Your task to perform on an android device: See recent photos Image 0: 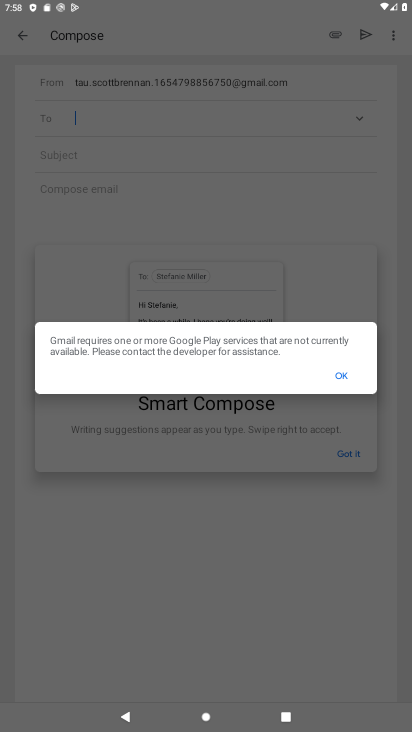
Step 0: press home button
Your task to perform on an android device: See recent photos Image 1: 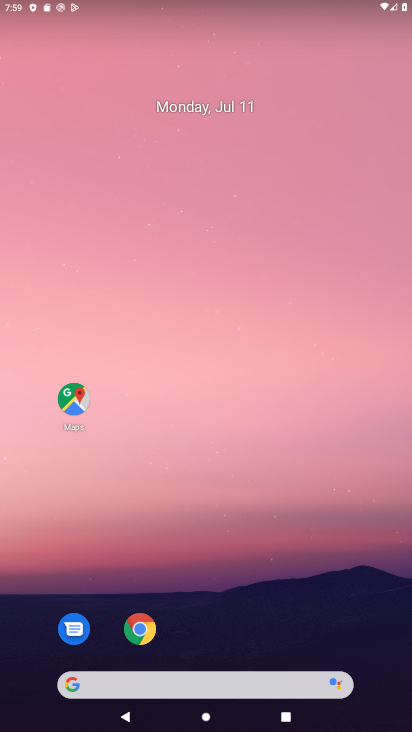
Step 1: drag from (196, 665) to (171, 215)
Your task to perform on an android device: See recent photos Image 2: 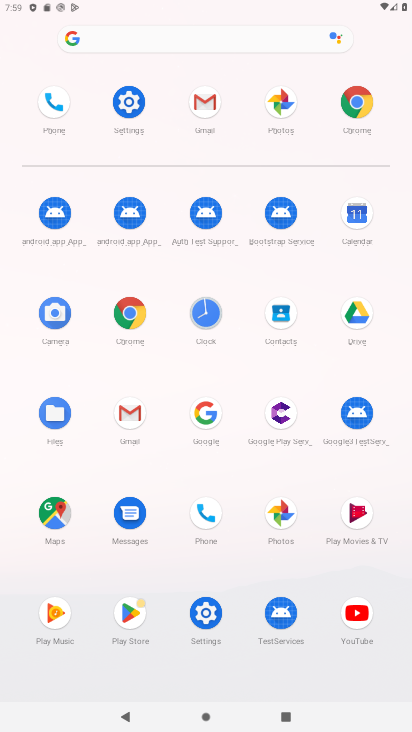
Step 2: click (275, 516)
Your task to perform on an android device: See recent photos Image 3: 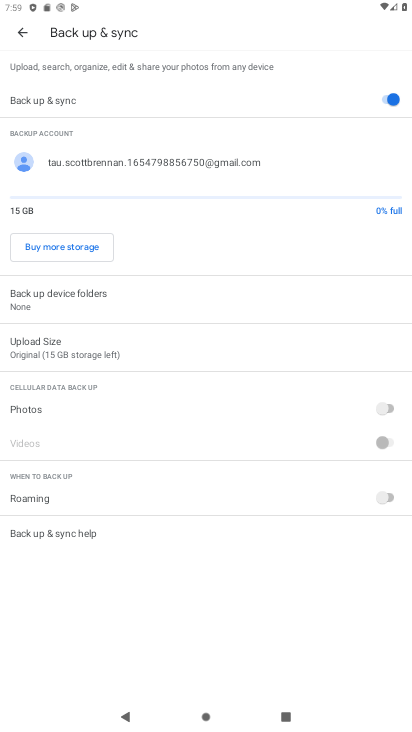
Step 3: press home button
Your task to perform on an android device: See recent photos Image 4: 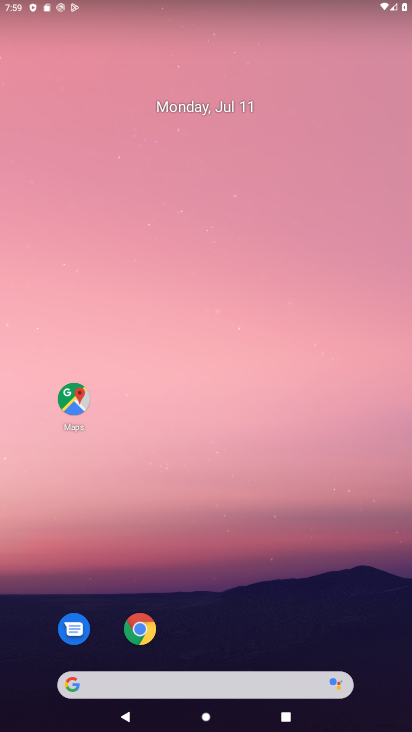
Step 4: drag from (191, 651) to (170, 201)
Your task to perform on an android device: See recent photos Image 5: 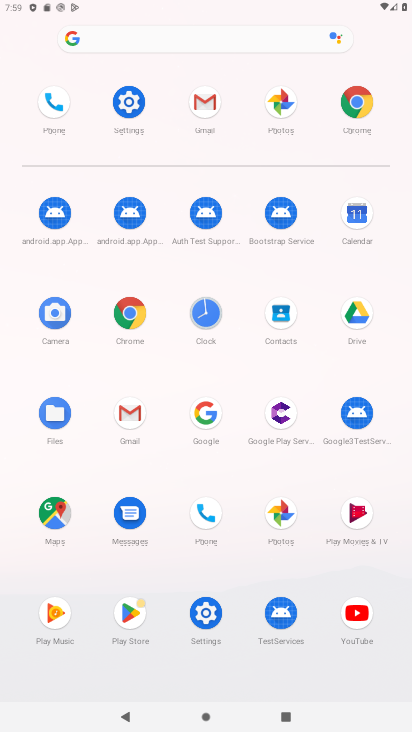
Step 5: click (287, 502)
Your task to perform on an android device: See recent photos Image 6: 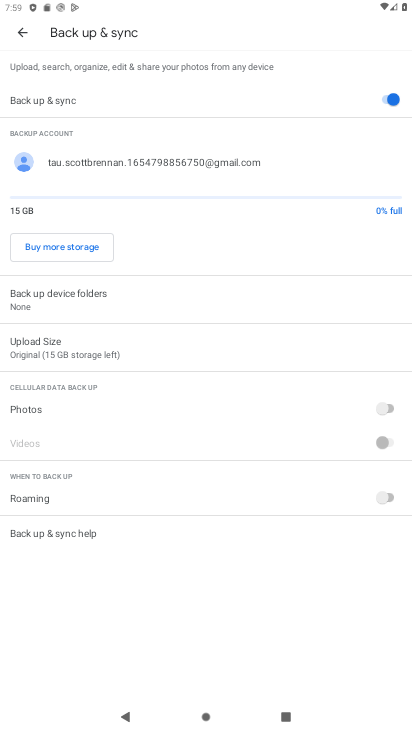
Step 6: click (21, 26)
Your task to perform on an android device: See recent photos Image 7: 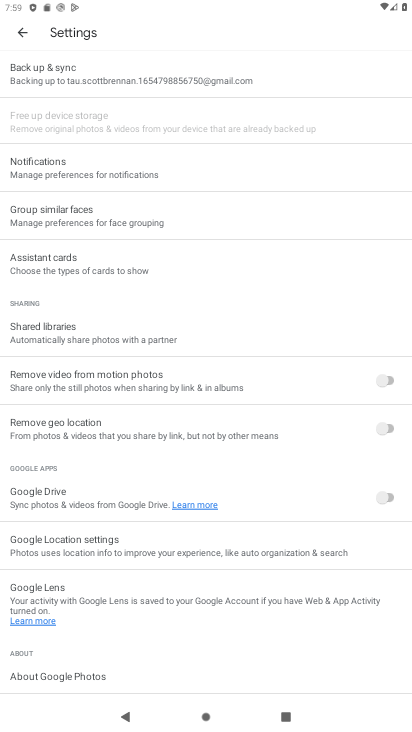
Step 7: click (22, 37)
Your task to perform on an android device: See recent photos Image 8: 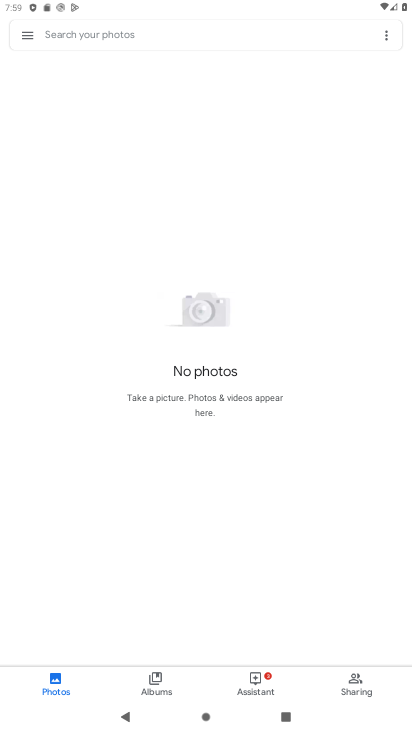
Step 8: task complete